Your task to perform on an android device: What's the weather? Image 0: 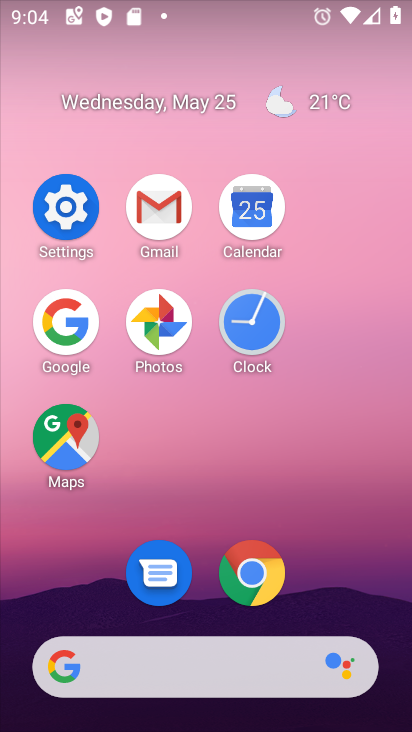
Step 0: click (58, 326)
Your task to perform on an android device: What's the weather? Image 1: 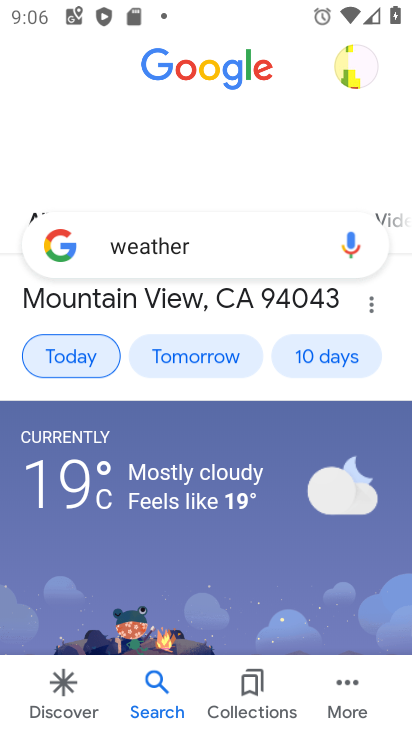
Step 1: task complete